Your task to perform on an android device: Open location settings Image 0: 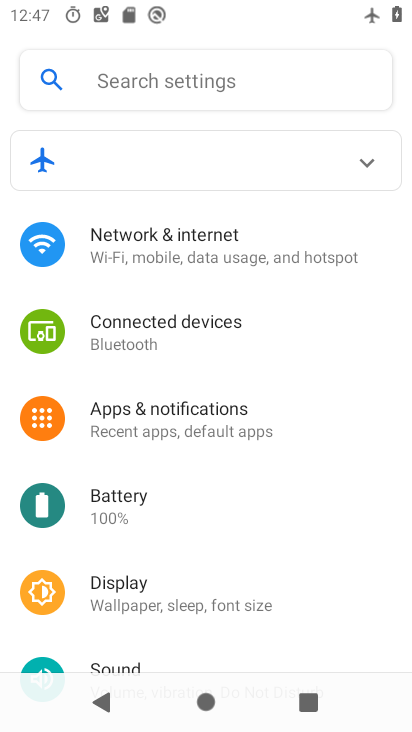
Step 0: drag from (265, 560) to (288, 203)
Your task to perform on an android device: Open location settings Image 1: 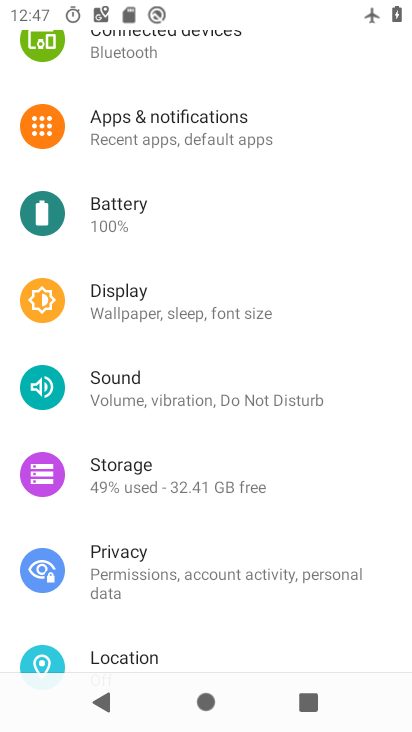
Step 1: drag from (251, 452) to (246, 209)
Your task to perform on an android device: Open location settings Image 2: 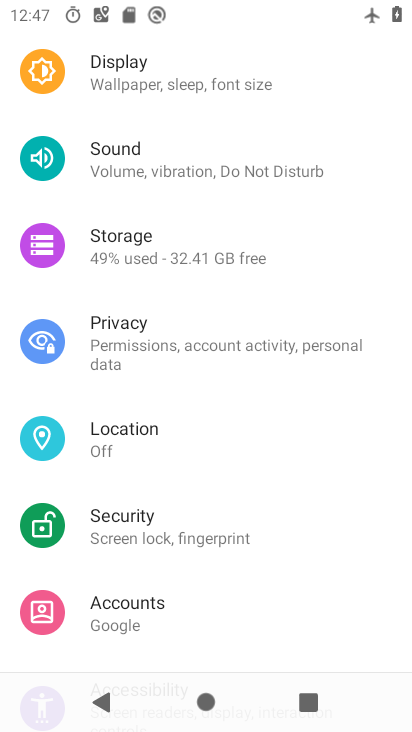
Step 2: click (125, 444)
Your task to perform on an android device: Open location settings Image 3: 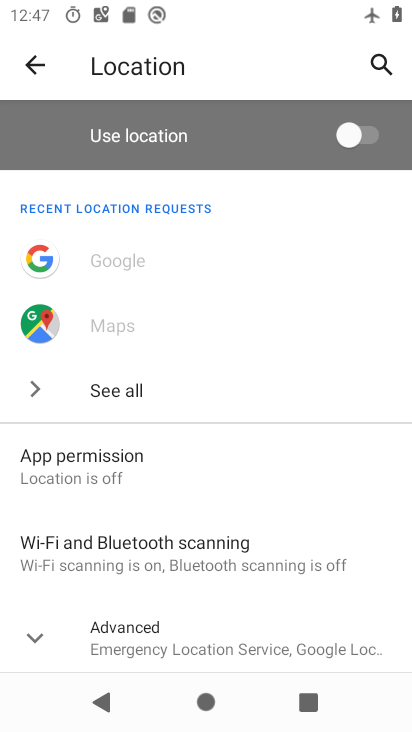
Step 3: task complete